Your task to perform on an android device: turn on priority inbox in the gmail app Image 0: 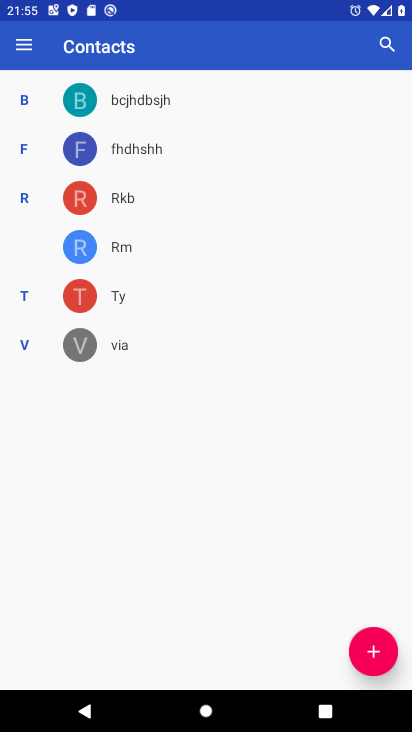
Step 0: press home button
Your task to perform on an android device: turn on priority inbox in the gmail app Image 1: 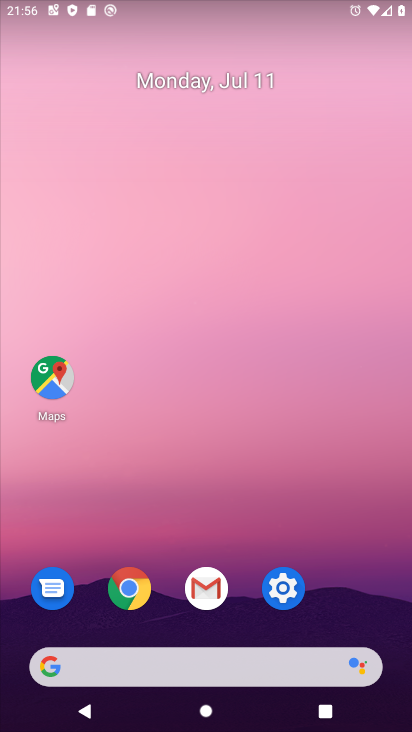
Step 1: click (203, 583)
Your task to perform on an android device: turn on priority inbox in the gmail app Image 2: 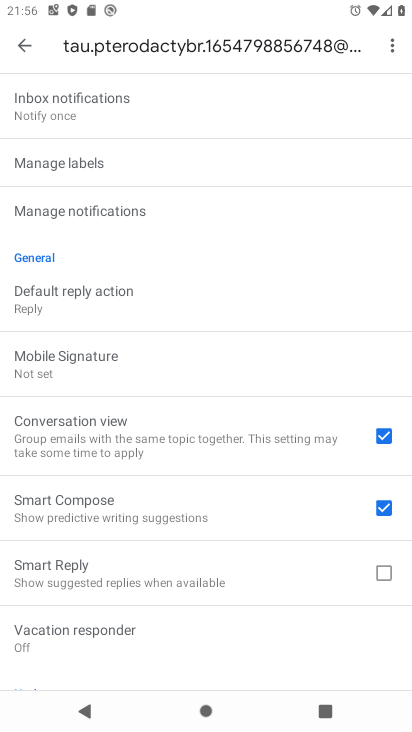
Step 2: drag from (115, 156) to (68, 411)
Your task to perform on an android device: turn on priority inbox in the gmail app Image 3: 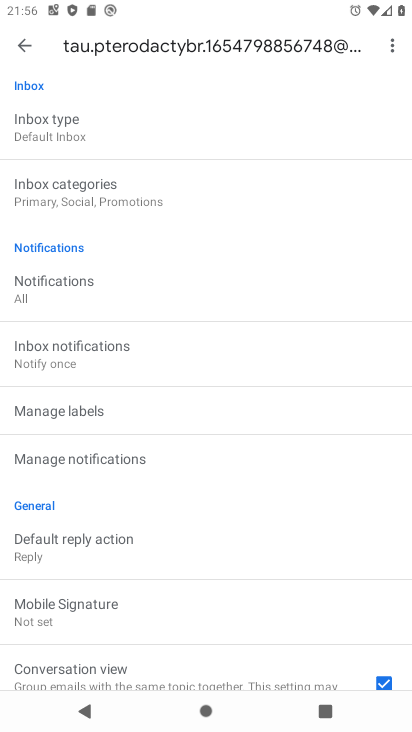
Step 3: click (110, 138)
Your task to perform on an android device: turn on priority inbox in the gmail app Image 4: 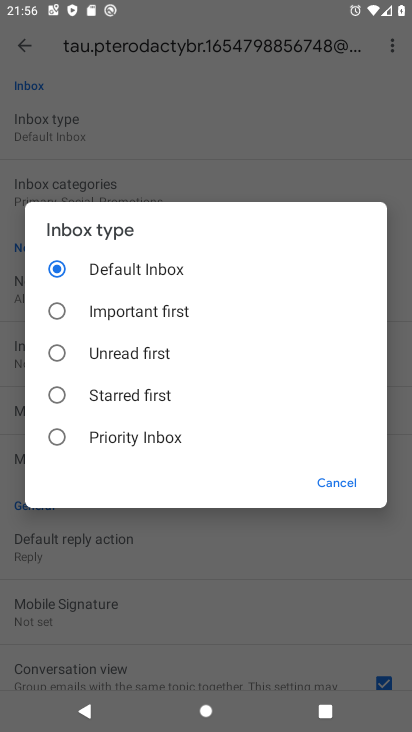
Step 4: click (107, 430)
Your task to perform on an android device: turn on priority inbox in the gmail app Image 5: 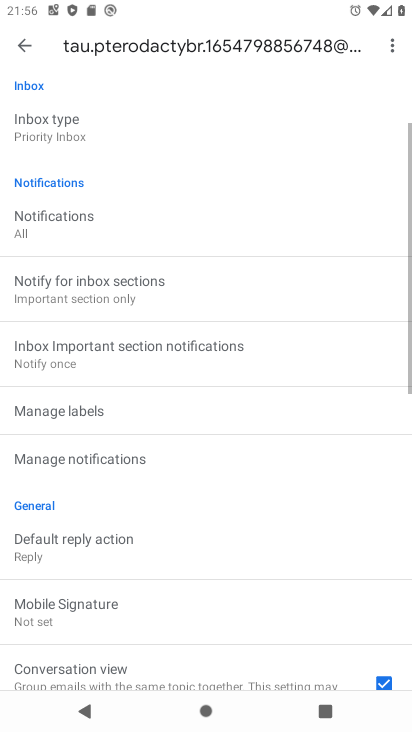
Step 5: click (112, 131)
Your task to perform on an android device: turn on priority inbox in the gmail app Image 6: 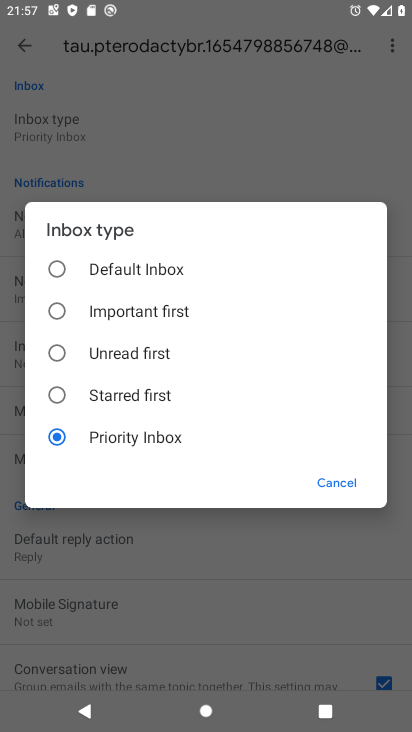
Step 6: task complete